Your task to perform on an android device: turn off sleep mode Image 0: 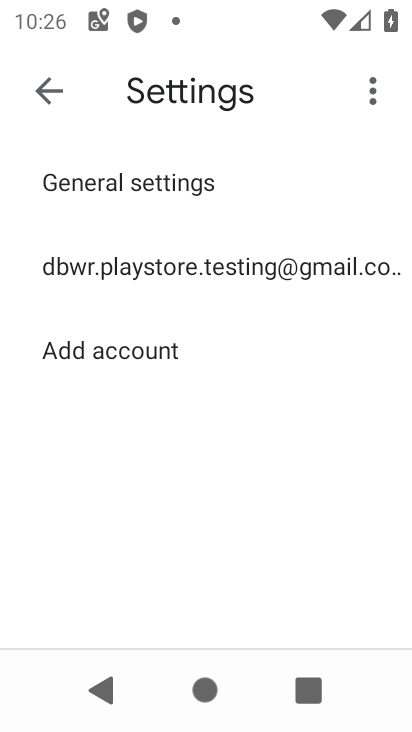
Step 0: press home button
Your task to perform on an android device: turn off sleep mode Image 1: 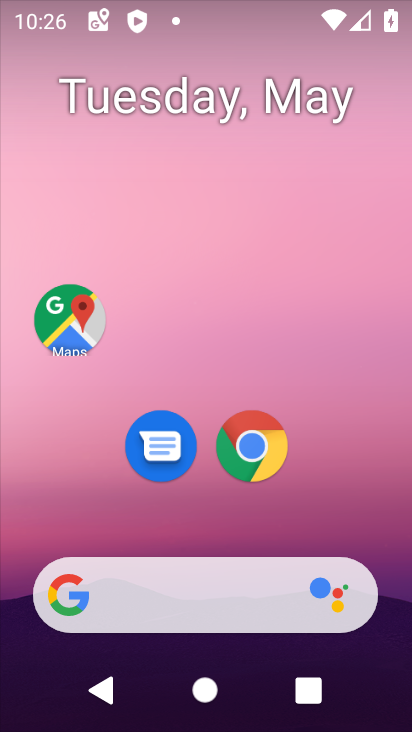
Step 1: drag from (254, 535) to (258, 129)
Your task to perform on an android device: turn off sleep mode Image 2: 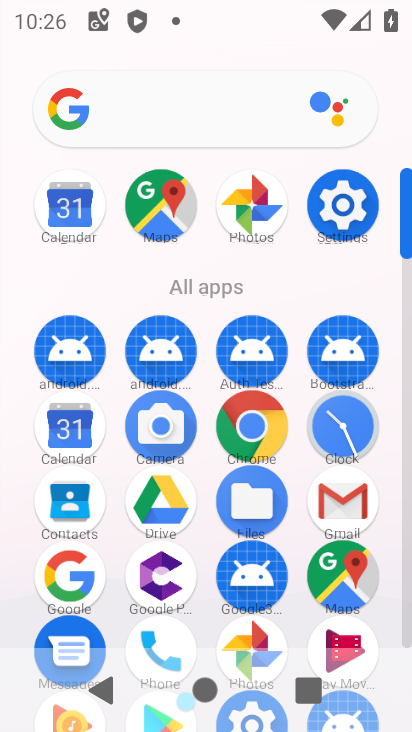
Step 2: click (340, 201)
Your task to perform on an android device: turn off sleep mode Image 3: 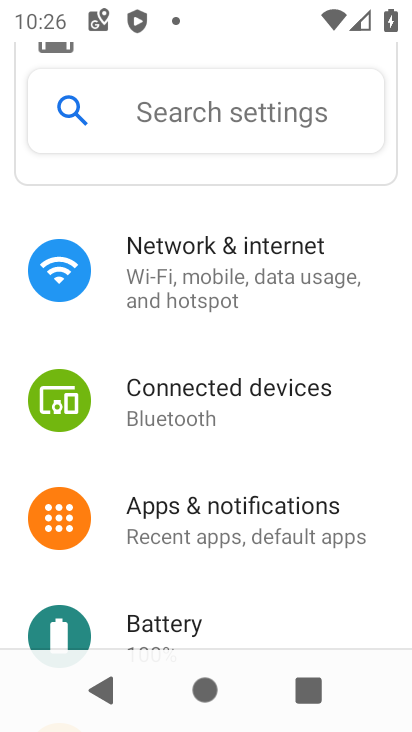
Step 3: click (227, 134)
Your task to perform on an android device: turn off sleep mode Image 4: 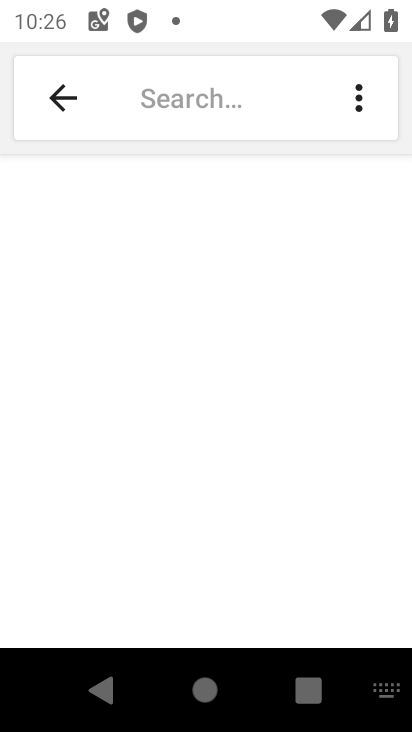
Step 4: type "sleep mode"
Your task to perform on an android device: turn off sleep mode Image 5: 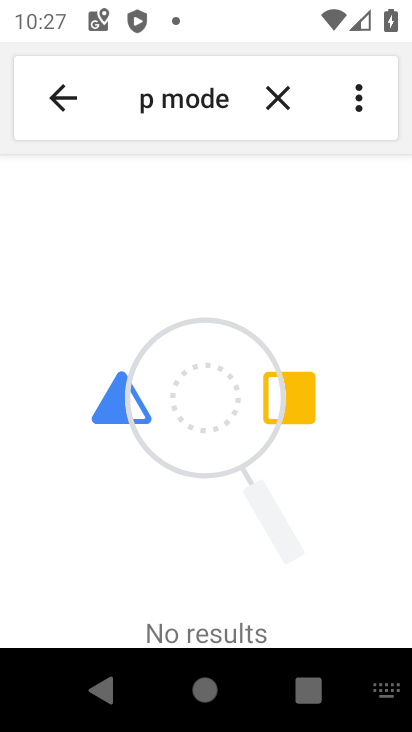
Step 5: task complete